Your task to perform on an android device: Search for seafood restaurants on Google Maps Image 0: 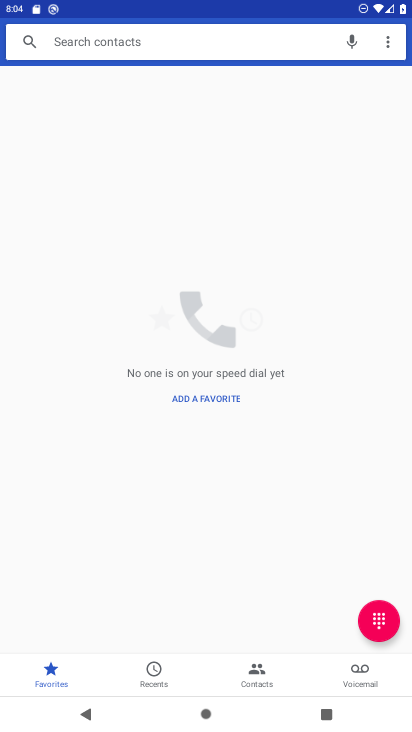
Step 0: click (248, 601)
Your task to perform on an android device: Search for seafood restaurants on Google Maps Image 1: 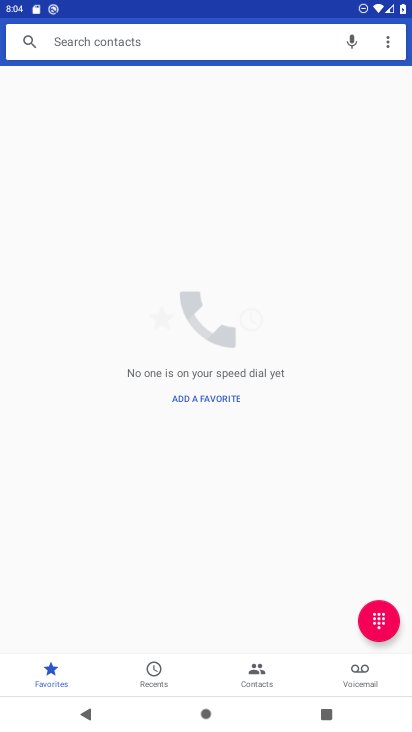
Step 1: press home button
Your task to perform on an android device: Search for seafood restaurants on Google Maps Image 2: 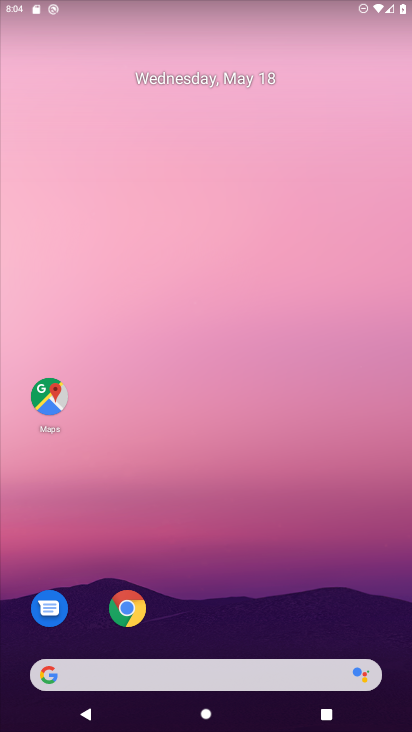
Step 2: drag from (265, 630) to (264, 131)
Your task to perform on an android device: Search for seafood restaurants on Google Maps Image 3: 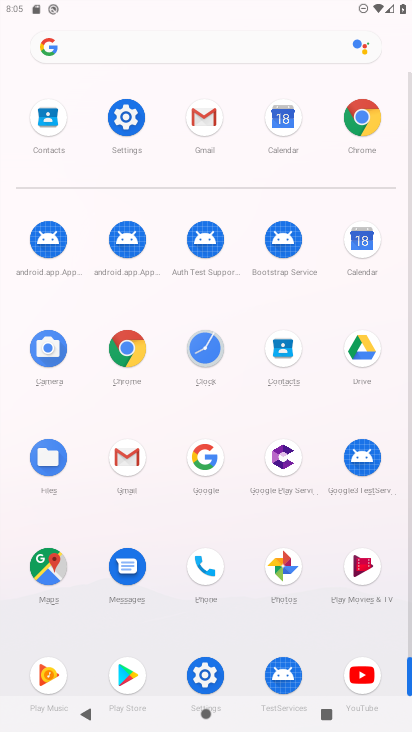
Step 3: click (40, 560)
Your task to perform on an android device: Search for seafood restaurants on Google Maps Image 4: 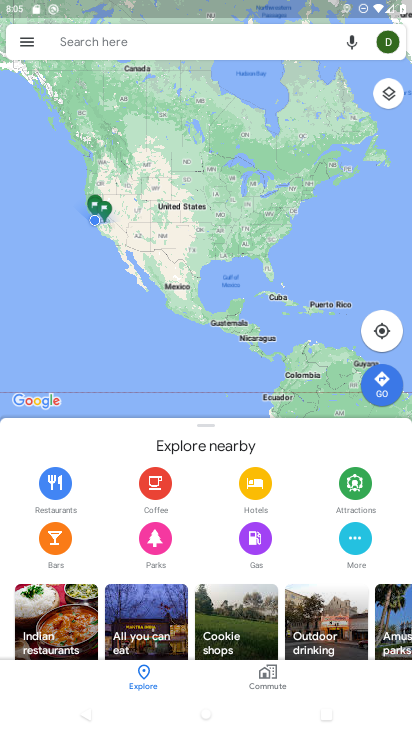
Step 4: drag from (192, 287) to (172, 246)
Your task to perform on an android device: Search for seafood restaurants on Google Maps Image 5: 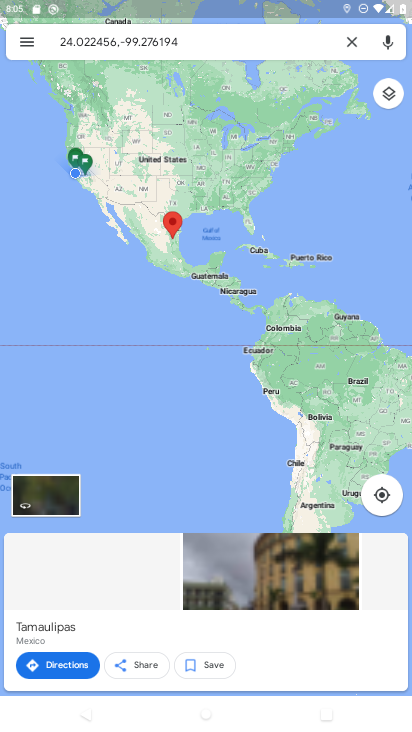
Step 5: click (130, 49)
Your task to perform on an android device: Search for seafood restaurants on Google Maps Image 6: 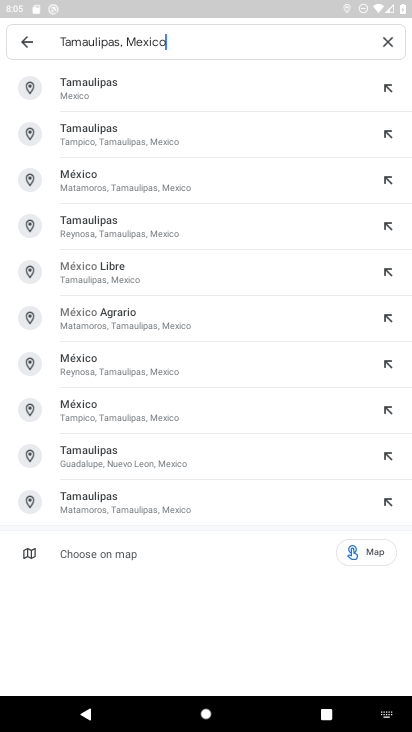
Step 6: click (392, 42)
Your task to perform on an android device: Search for seafood restaurants on Google Maps Image 7: 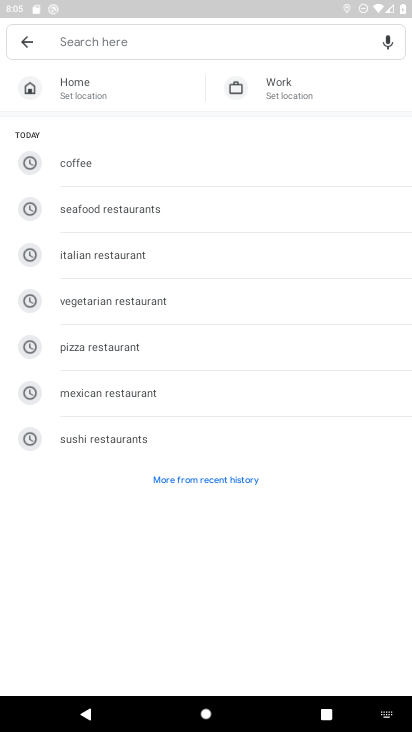
Step 7: click (104, 213)
Your task to perform on an android device: Search for seafood restaurants on Google Maps Image 8: 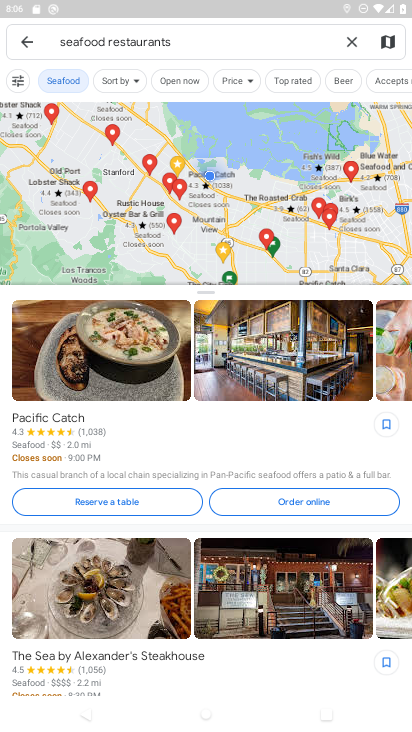
Step 8: task complete